Your task to perform on an android device: change timer sound Image 0: 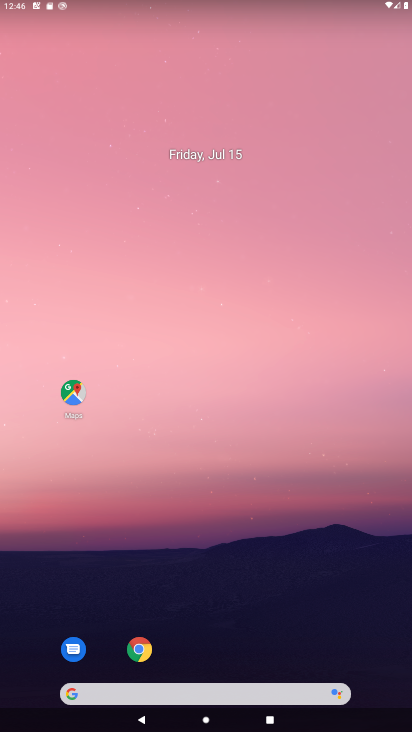
Step 0: drag from (221, 646) to (225, 256)
Your task to perform on an android device: change timer sound Image 1: 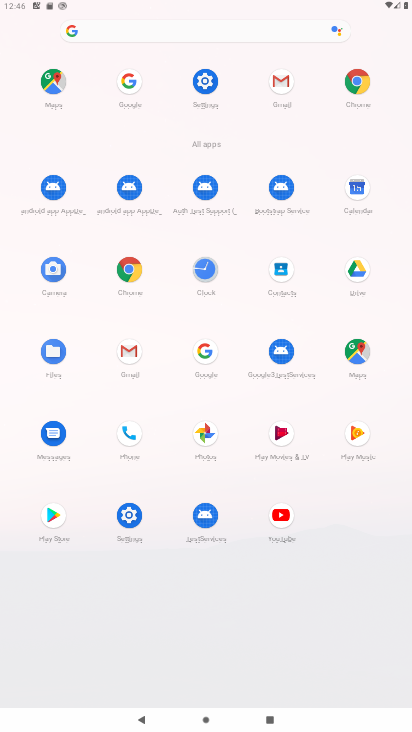
Step 1: click (205, 261)
Your task to perform on an android device: change timer sound Image 2: 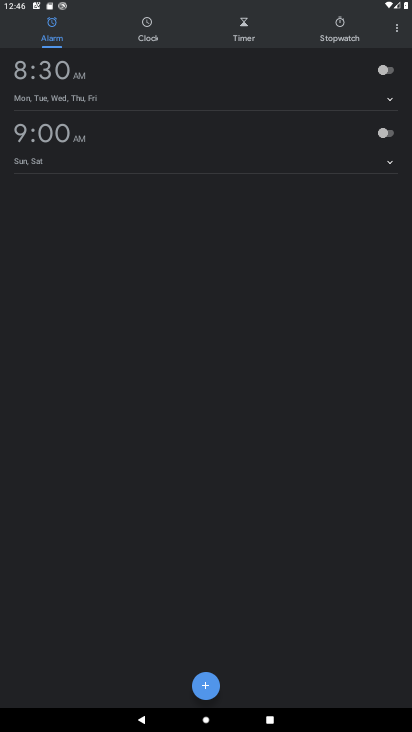
Step 2: click (394, 29)
Your task to perform on an android device: change timer sound Image 3: 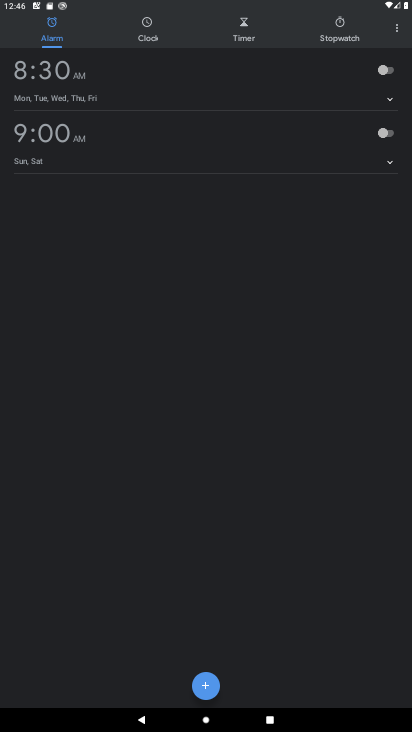
Step 3: click (395, 18)
Your task to perform on an android device: change timer sound Image 4: 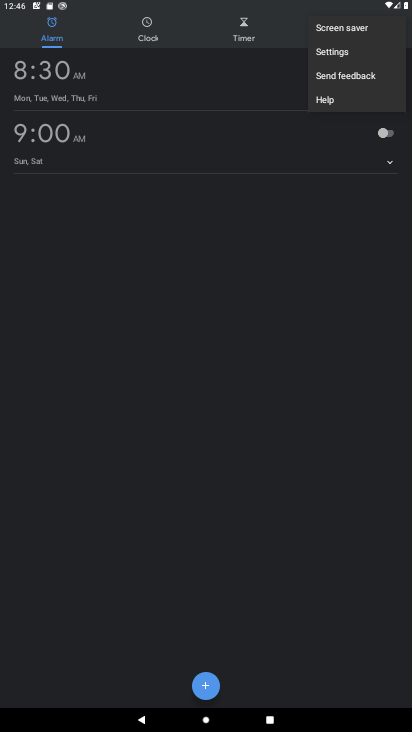
Step 4: click (339, 67)
Your task to perform on an android device: change timer sound Image 5: 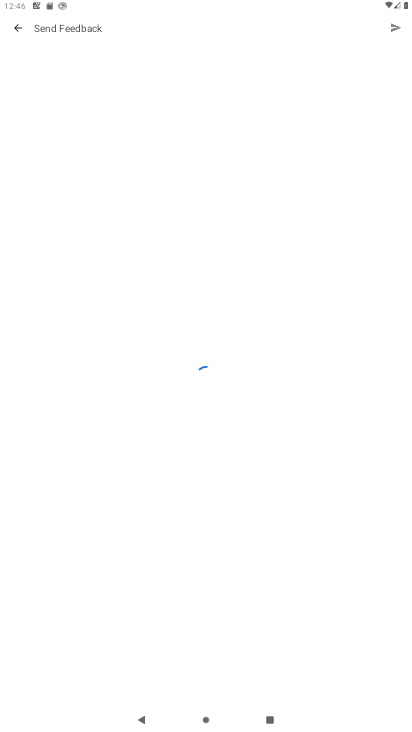
Step 5: click (17, 23)
Your task to perform on an android device: change timer sound Image 6: 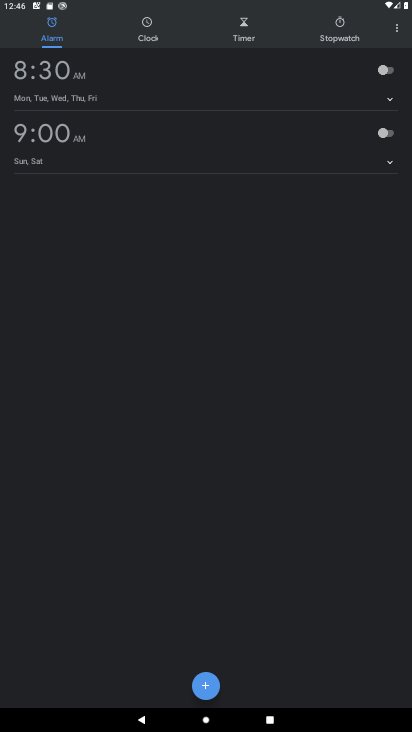
Step 6: click (395, 35)
Your task to perform on an android device: change timer sound Image 7: 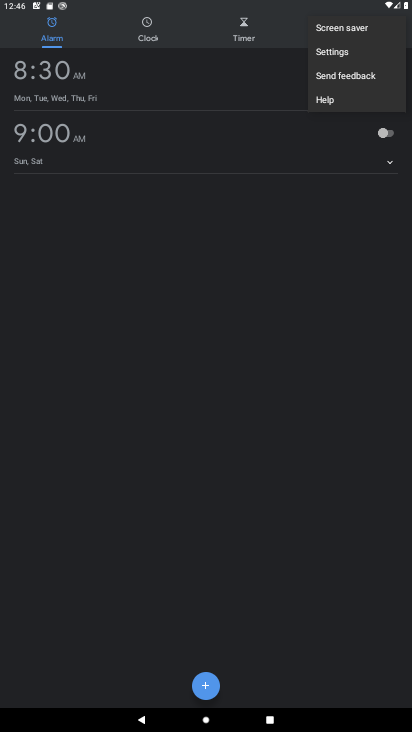
Step 7: click (353, 58)
Your task to perform on an android device: change timer sound Image 8: 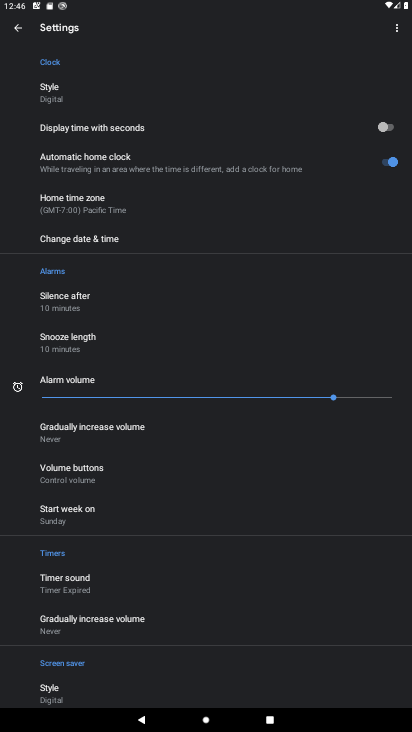
Step 8: click (93, 580)
Your task to perform on an android device: change timer sound Image 9: 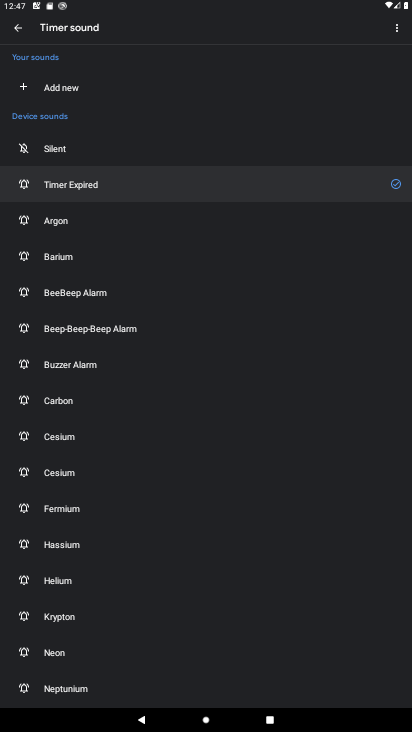
Step 9: click (75, 468)
Your task to perform on an android device: change timer sound Image 10: 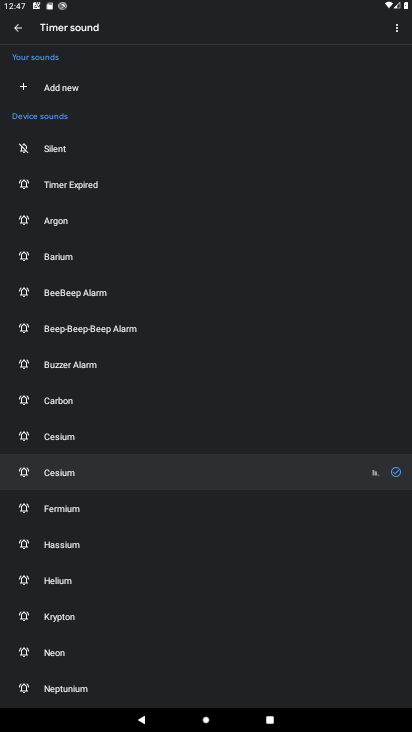
Step 10: task complete